Your task to perform on an android device: Open Reddit.com Image 0: 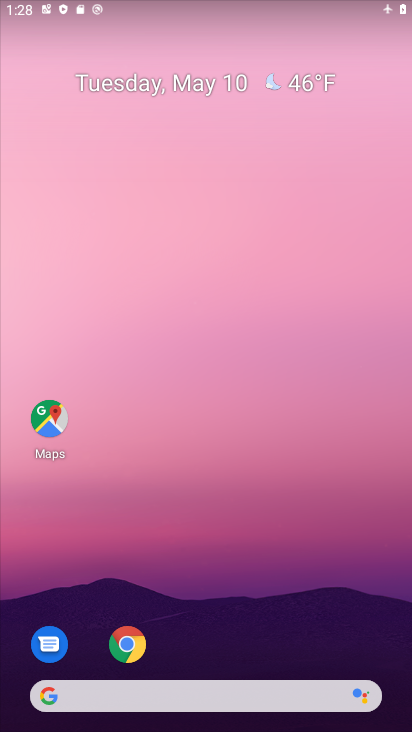
Step 0: click (185, 652)
Your task to perform on an android device: Open Reddit.com Image 1: 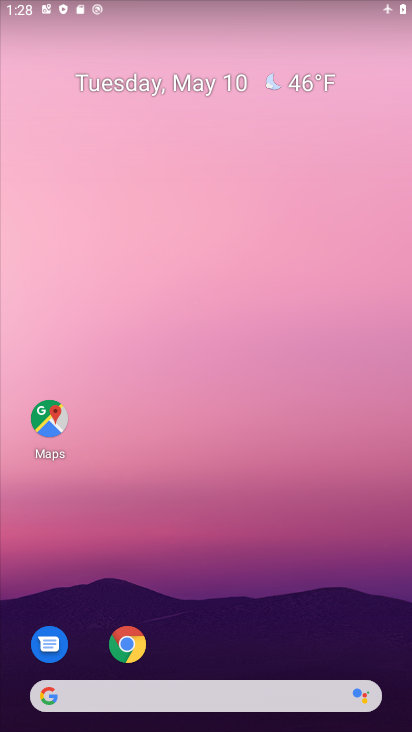
Step 1: click (112, 643)
Your task to perform on an android device: Open Reddit.com Image 2: 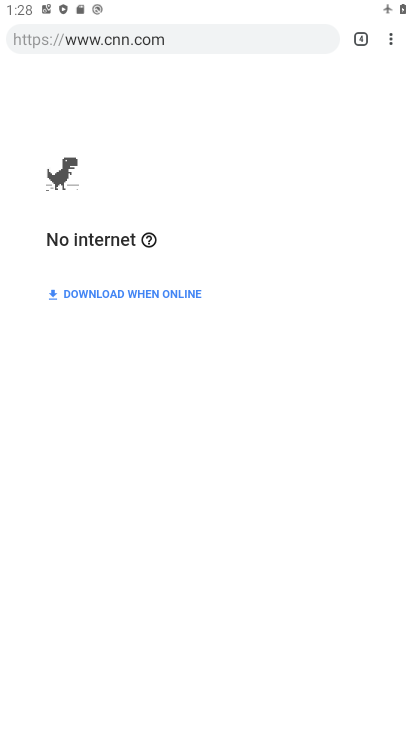
Step 2: task complete